Your task to perform on an android device: open a new tab in the chrome app Image 0: 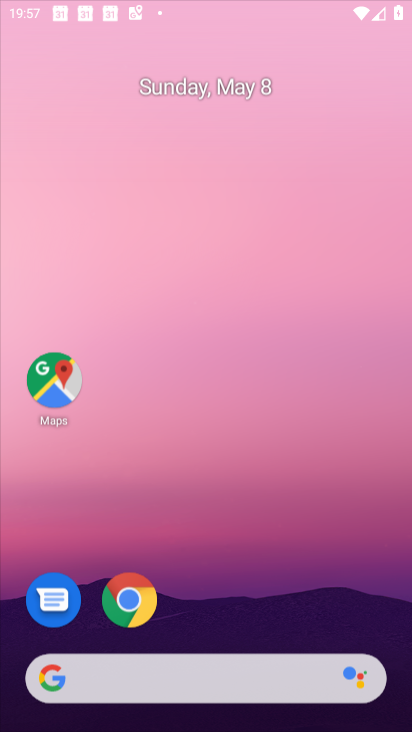
Step 0: click (275, 254)
Your task to perform on an android device: open a new tab in the chrome app Image 1: 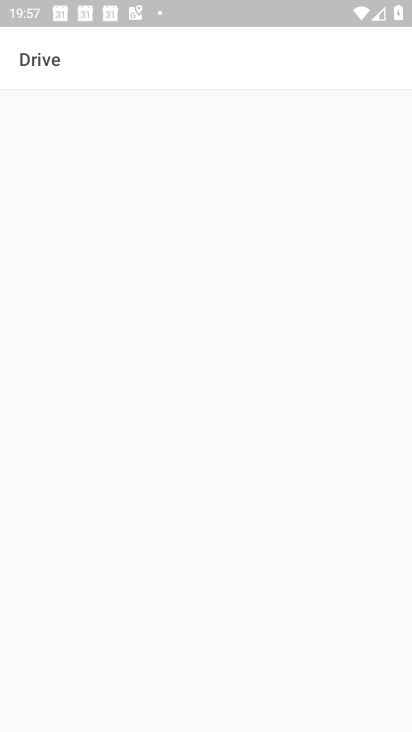
Step 1: press home button
Your task to perform on an android device: open a new tab in the chrome app Image 2: 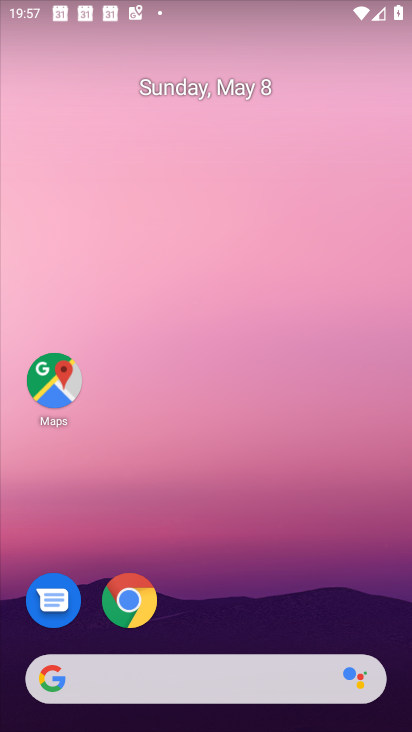
Step 2: drag from (252, 711) to (255, 264)
Your task to perform on an android device: open a new tab in the chrome app Image 3: 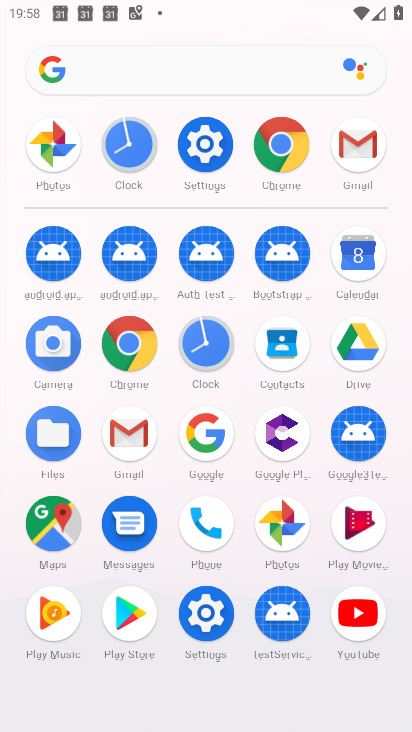
Step 3: click (144, 355)
Your task to perform on an android device: open a new tab in the chrome app Image 4: 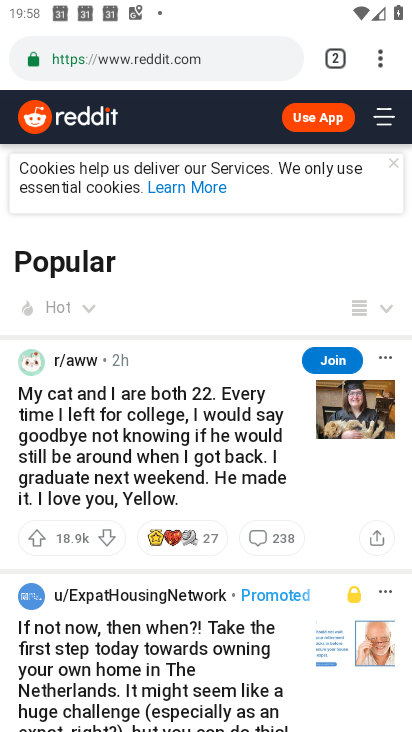
Step 4: click (377, 71)
Your task to perform on an android device: open a new tab in the chrome app Image 5: 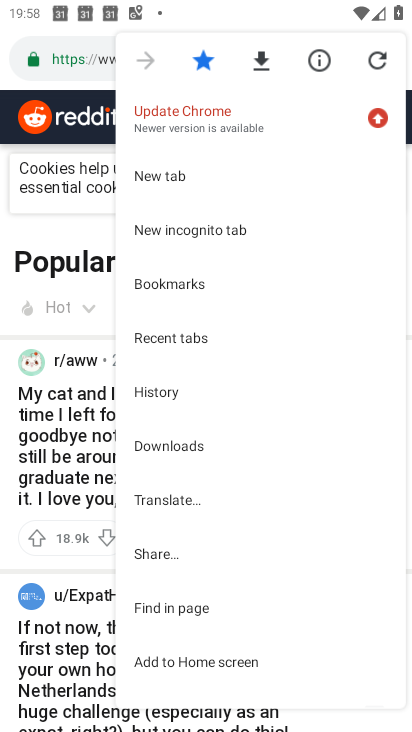
Step 5: click (195, 173)
Your task to perform on an android device: open a new tab in the chrome app Image 6: 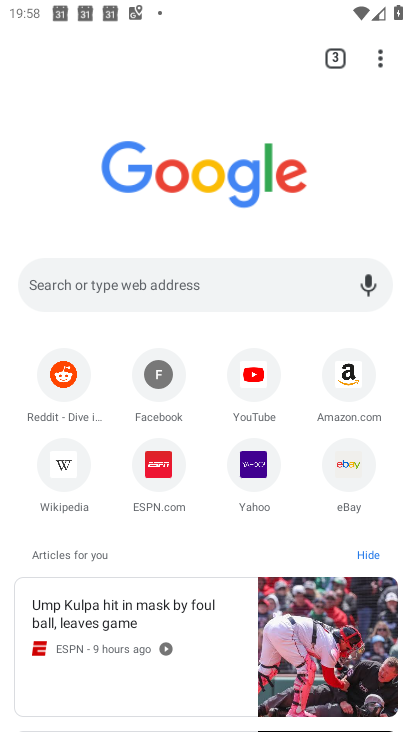
Step 6: task complete